Your task to perform on an android device: star an email in the gmail app Image 0: 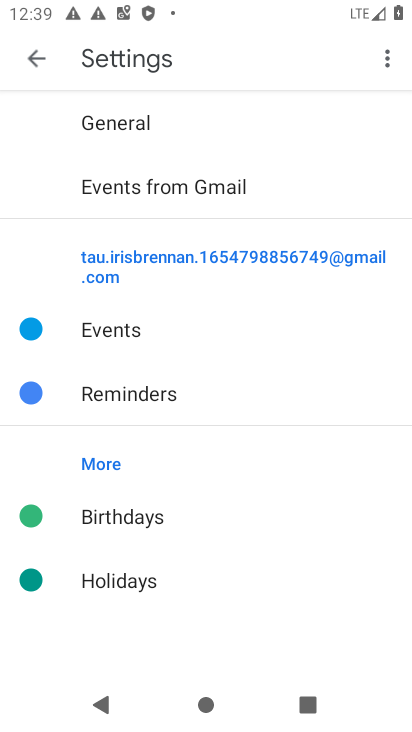
Step 0: press home button
Your task to perform on an android device: star an email in the gmail app Image 1: 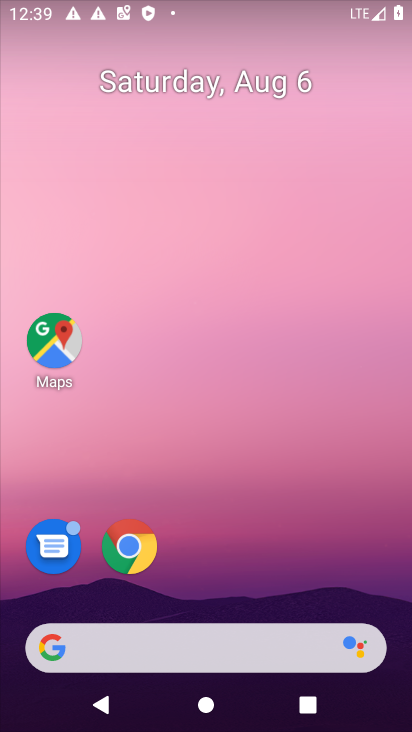
Step 1: drag from (309, 528) to (280, 37)
Your task to perform on an android device: star an email in the gmail app Image 2: 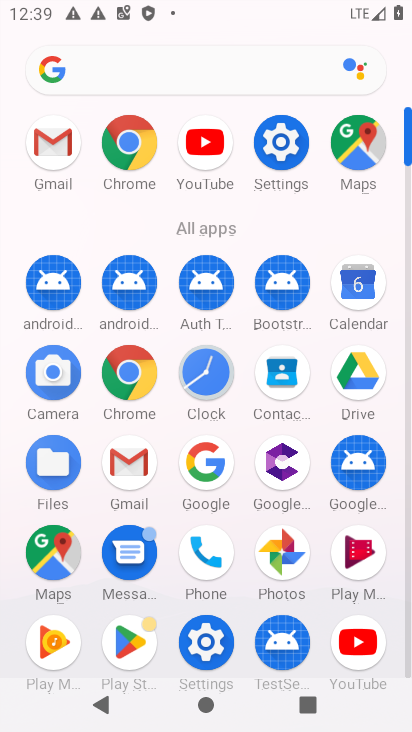
Step 2: click (127, 461)
Your task to perform on an android device: star an email in the gmail app Image 3: 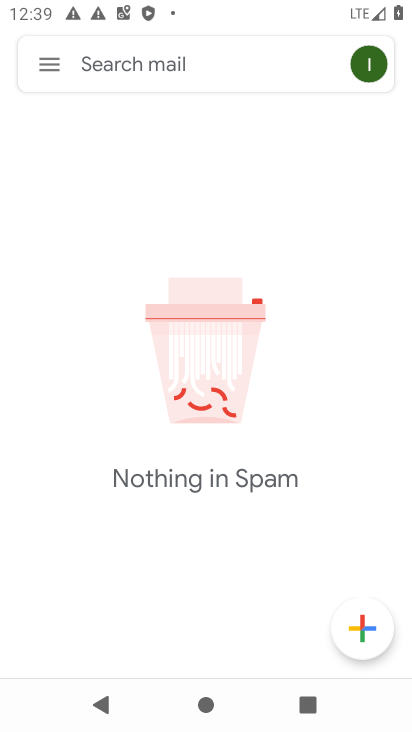
Step 3: click (47, 62)
Your task to perform on an android device: star an email in the gmail app Image 4: 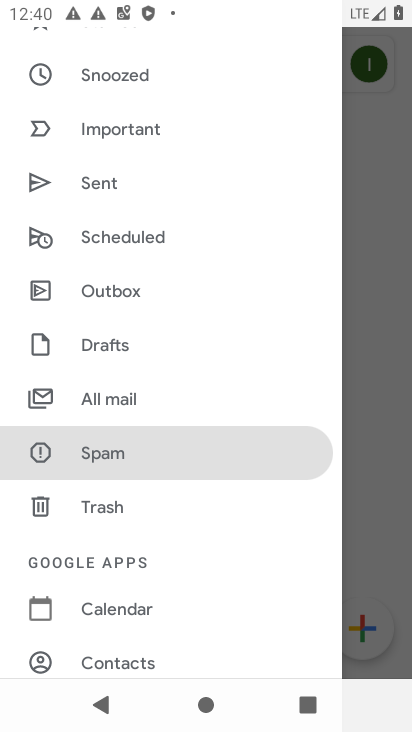
Step 4: drag from (279, 286) to (270, 460)
Your task to perform on an android device: star an email in the gmail app Image 5: 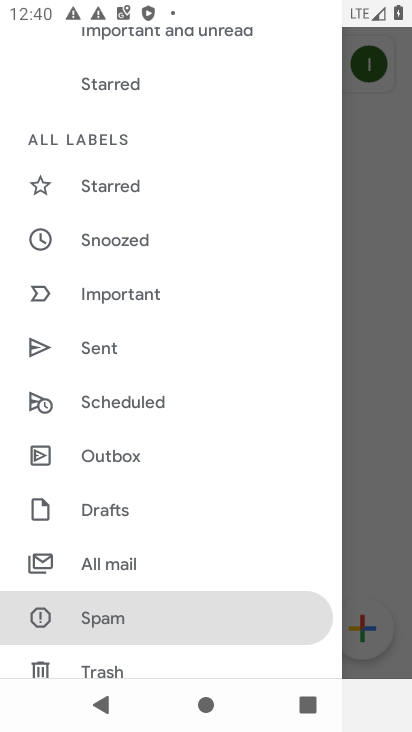
Step 5: click (94, 563)
Your task to perform on an android device: star an email in the gmail app Image 6: 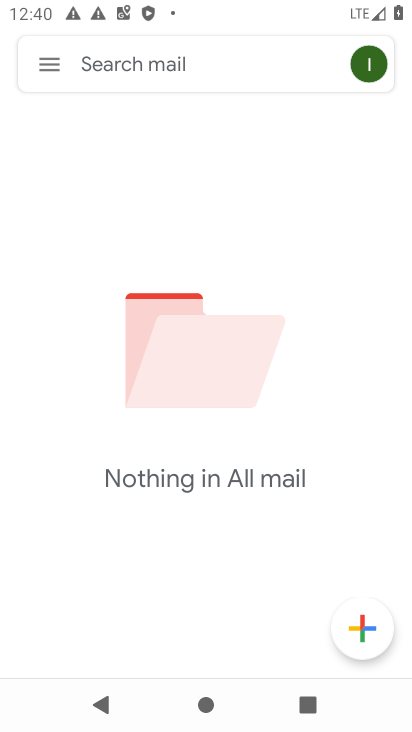
Step 6: task complete